Your task to perform on an android device: turn on data saver in the chrome app Image 0: 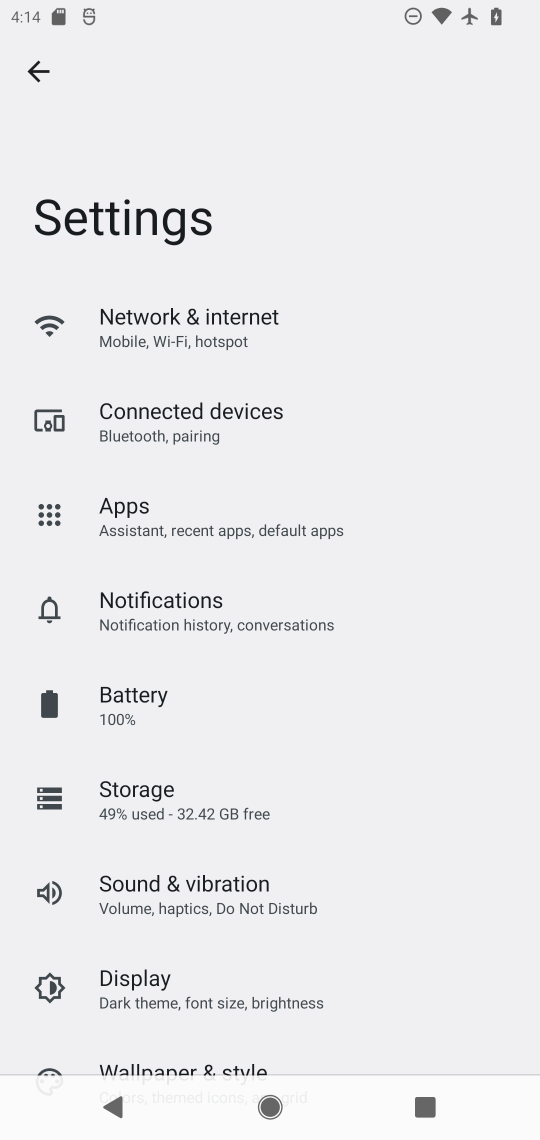
Step 0: press home button
Your task to perform on an android device: turn on data saver in the chrome app Image 1: 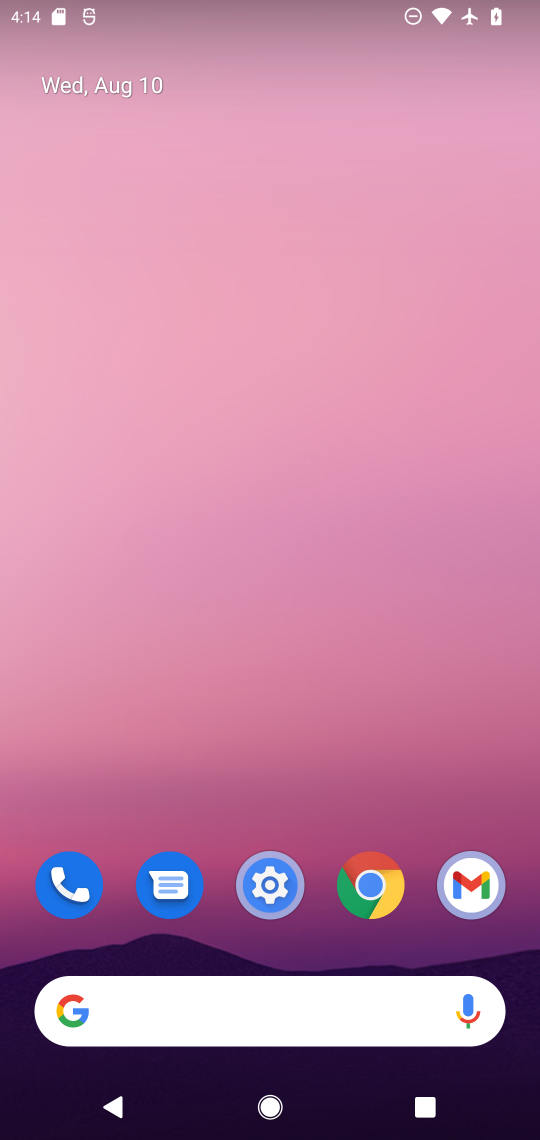
Step 1: click (379, 885)
Your task to perform on an android device: turn on data saver in the chrome app Image 2: 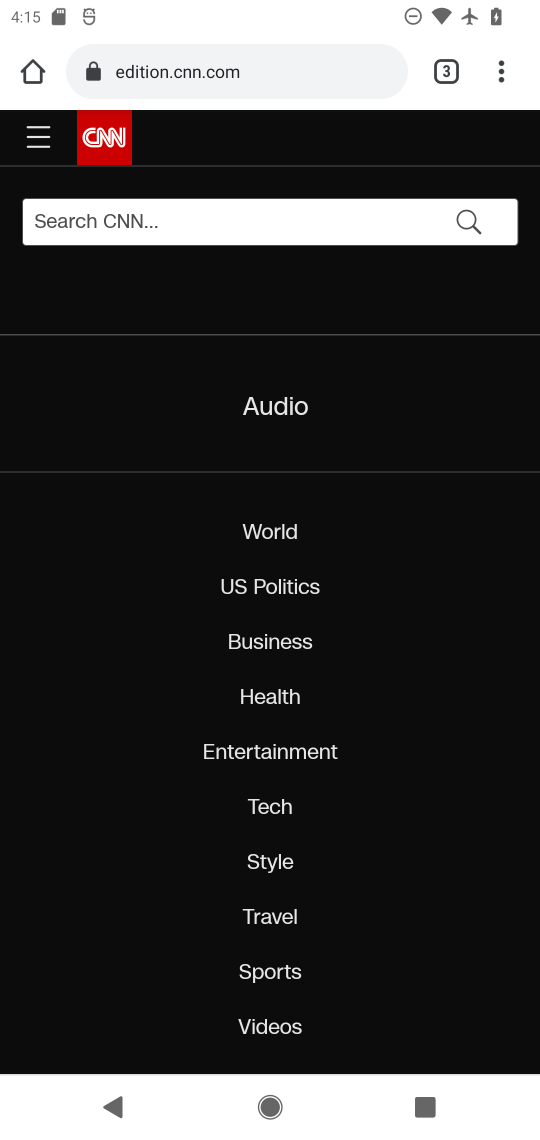
Step 2: click (495, 75)
Your task to perform on an android device: turn on data saver in the chrome app Image 3: 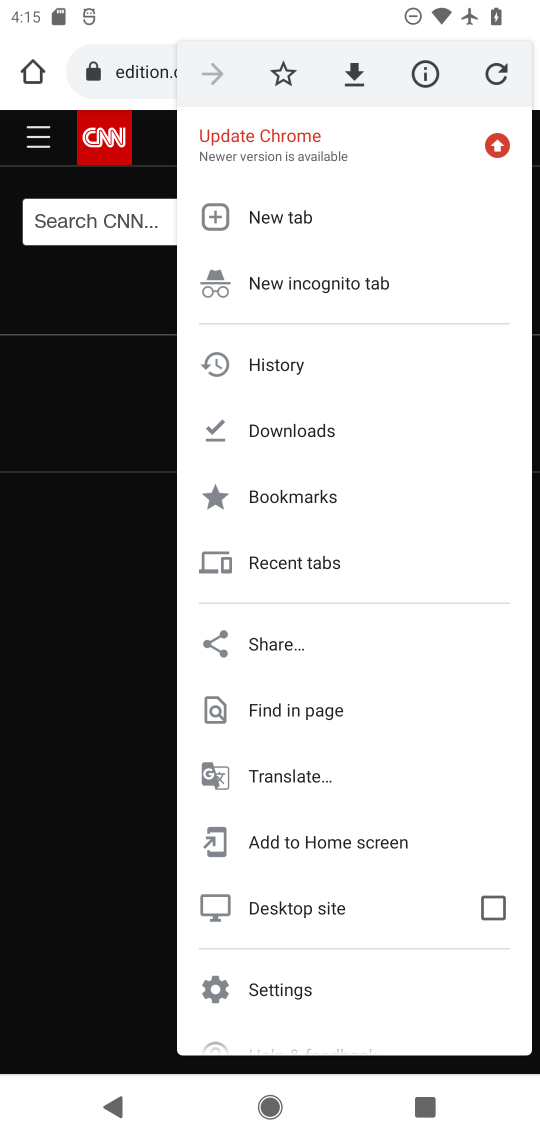
Step 3: click (286, 993)
Your task to perform on an android device: turn on data saver in the chrome app Image 4: 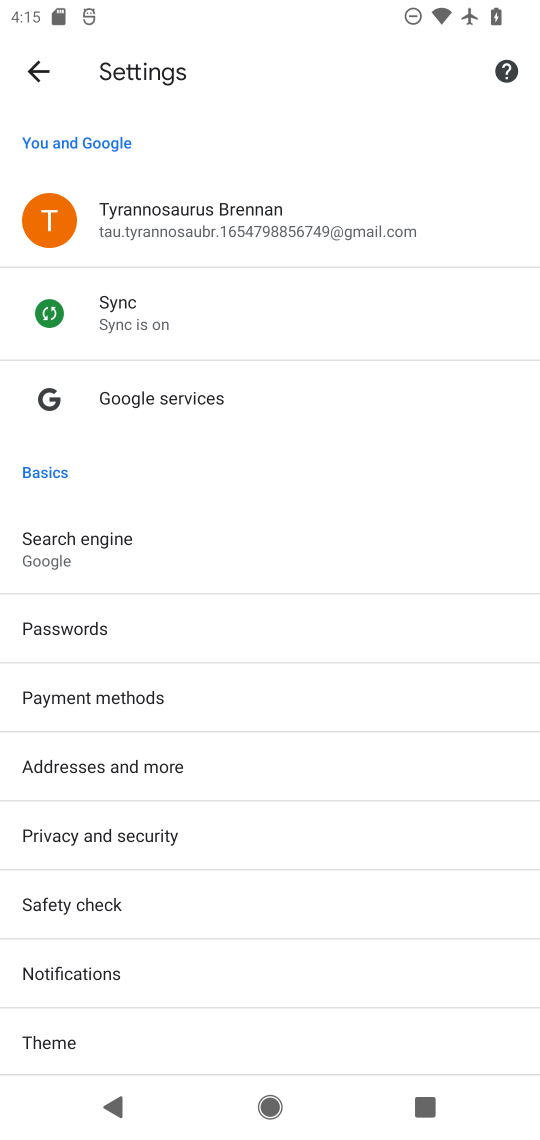
Step 4: drag from (231, 960) to (212, 349)
Your task to perform on an android device: turn on data saver in the chrome app Image 5: 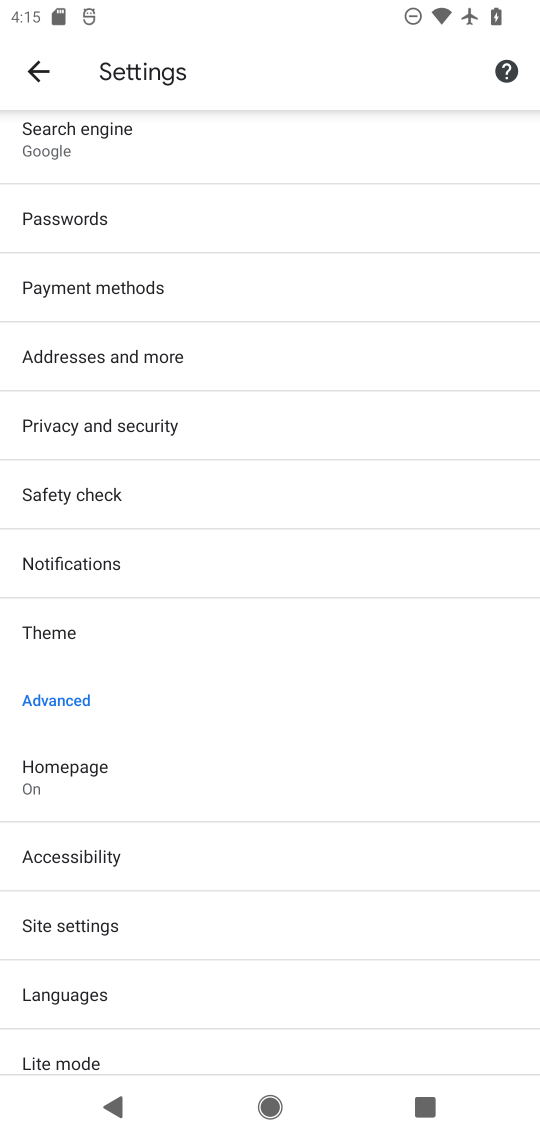
Step 5: click (86, 1048)
Your task to perform on an android device: turn on data saver in the chrome app Image 6: 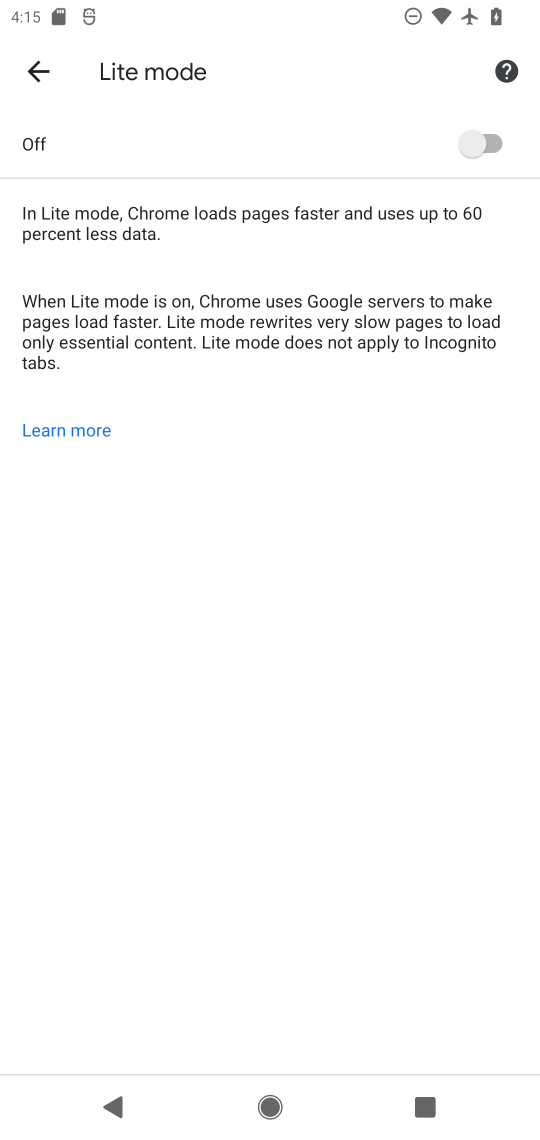
Step 6: click (473, 138)
Your task to perform on an android device: turn on data saver in the chrome app Image 7: 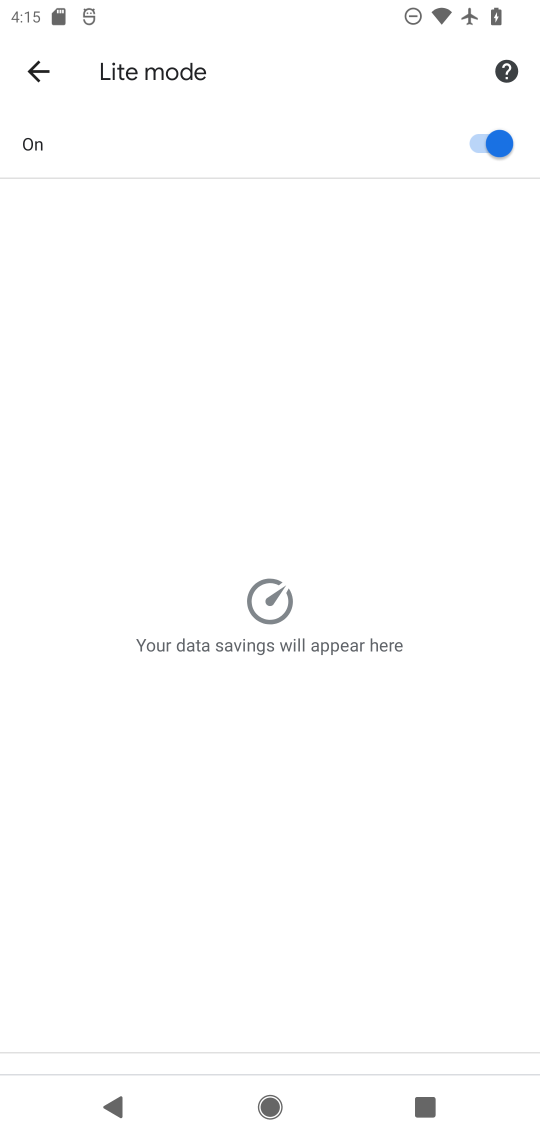
Step 7: task complete